Your task to perform on an android device: turn on location history Image 0: 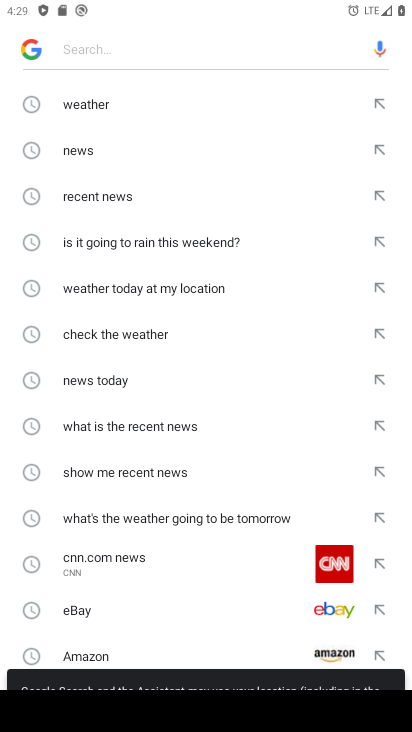
Step 0: press back button
Your task to perform on an android device: turn on location history Image 1: 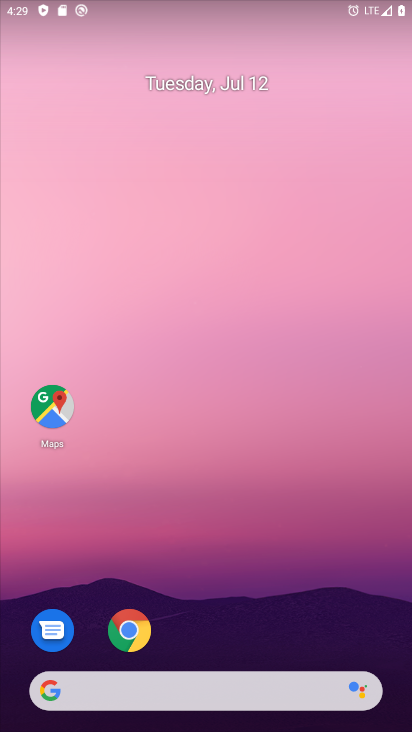
Step 1: drag from (257, 592) to (177, 51)
Your task to perform on an android device: turn on location history Image 2: 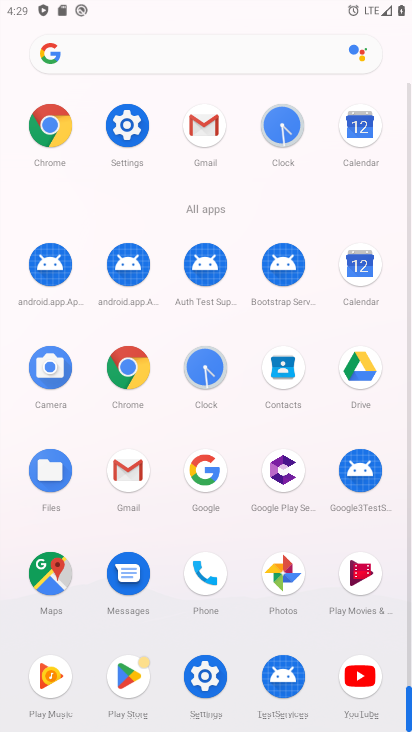
Step 2: click (126, 138)
Your task to perform on an android device: turn on location history Image 3: 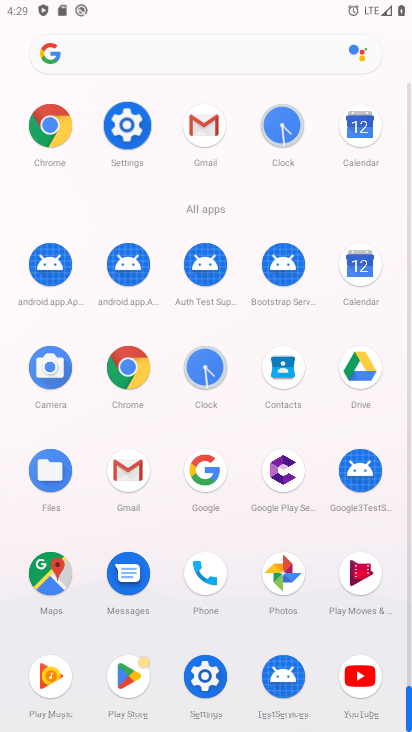
Step 3: click (126, 138)
Your task to perform on an android device: turn on location history Image 4: 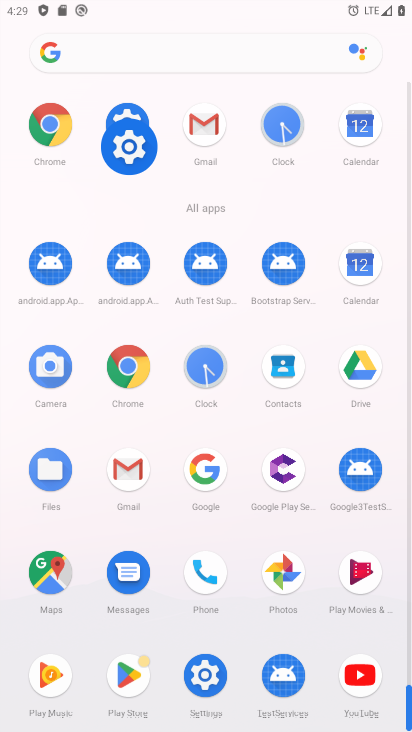
Step 4: click (126, 138)
Your task to perform on an android device: turn on location history Image 5: 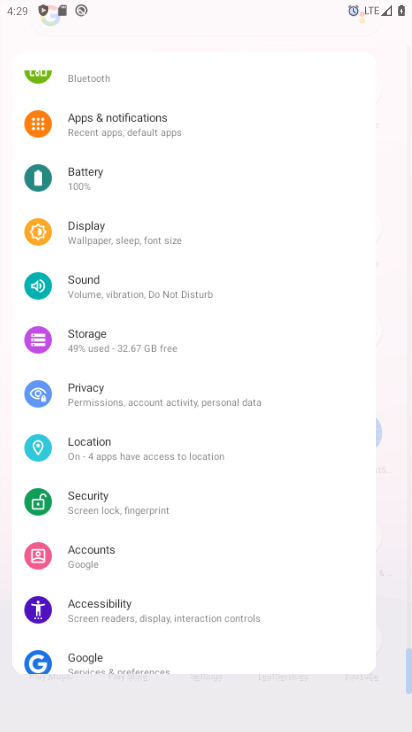
Step 5: click (126, 138)
Your task to perform on an android device: turn on location history Image 6: 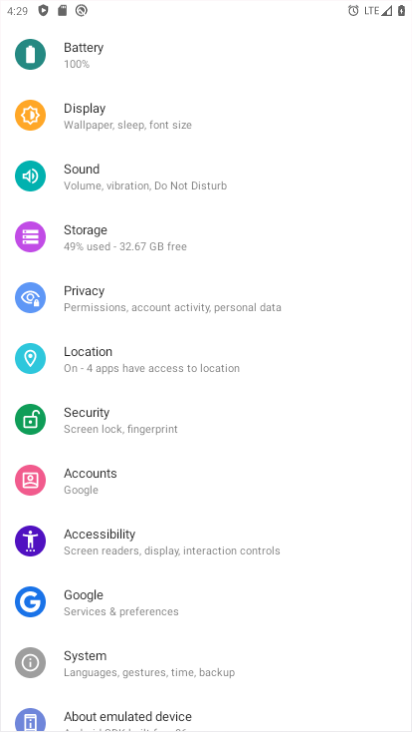
Step 6: click (126, 138)
Your task to perform on an android device: turn on location history Image 7: 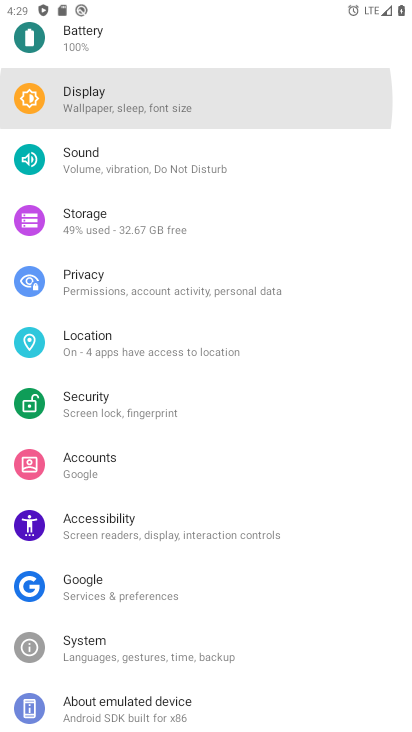
Step 7: click (126, 138)
Your task to perform on an android device: turn on location history Image 8: 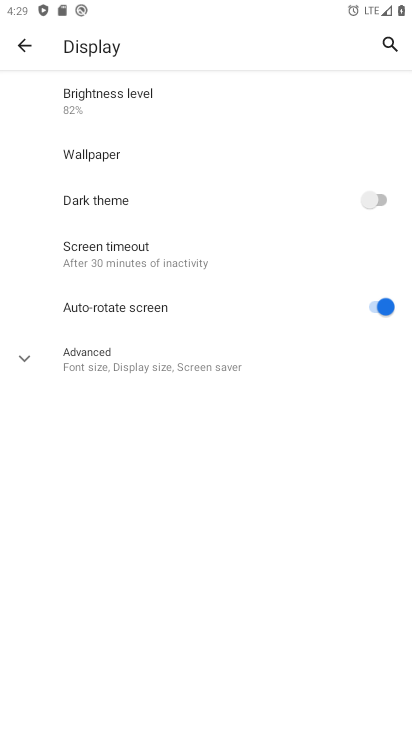
Step 8: drag from (219, 491) to (205, 130)
Your task to perform on an android device: turn on location history Image 9: 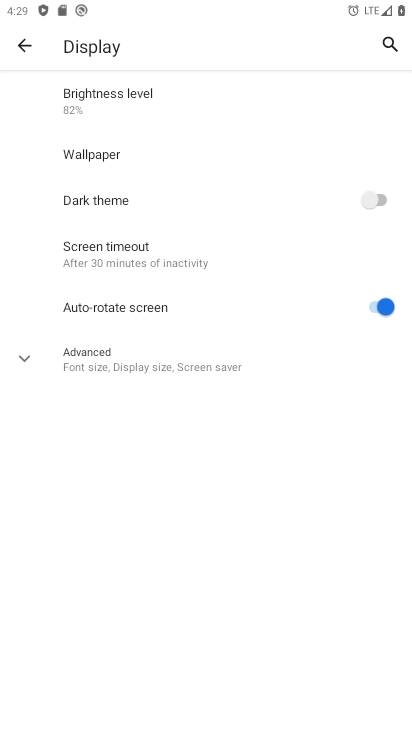
Step 9: click (24, 45)
Your task to perform on an android device: turn on location history Image 10: 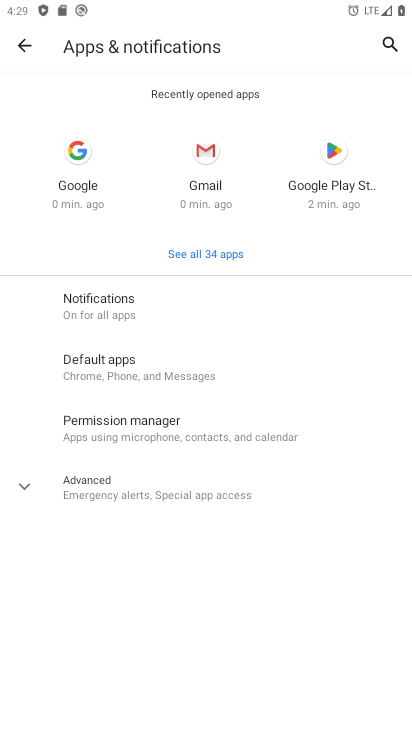
Step 10: click (21, 40)
Your task to perform on an android device: turn on location history Image 11: 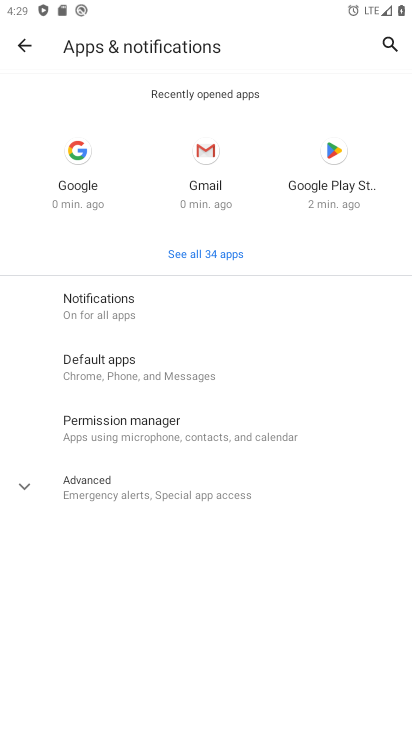
Step 11: click (21, 40)
Your task to perform on an android device: turn on location history Image 12: 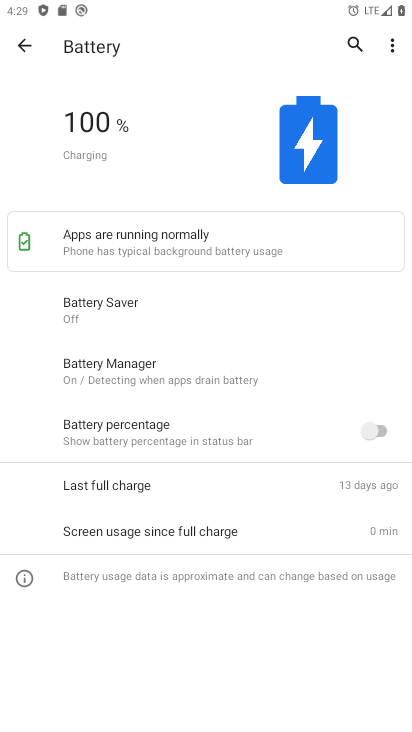
Step 12: click (23, 41)
Your task to perform on an android device: turn on location history Image 13: 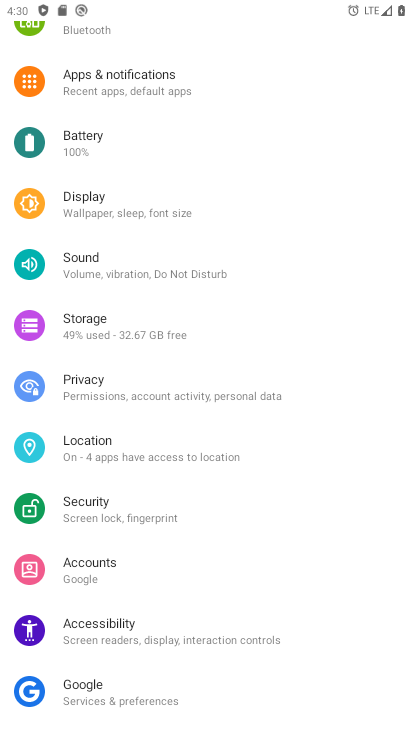
Step 13: drag from (139, 142) to (157, 460)
Your task to perform on an android device: turn on location history Image 14: 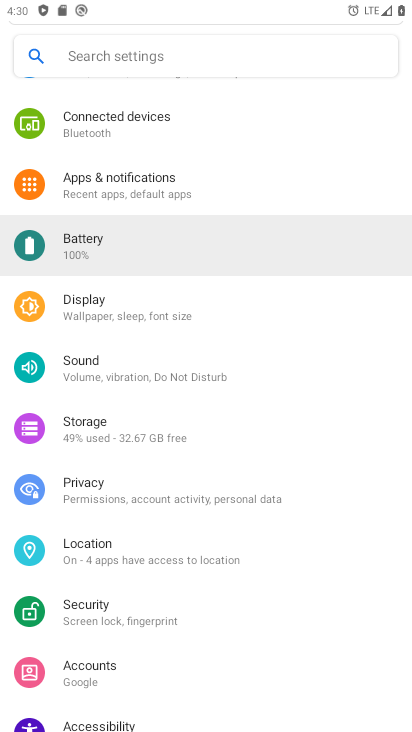
Step 14: drag from (142, 202) to (182, 497)
Your task to perform on an android device: turn on location history Image 15: 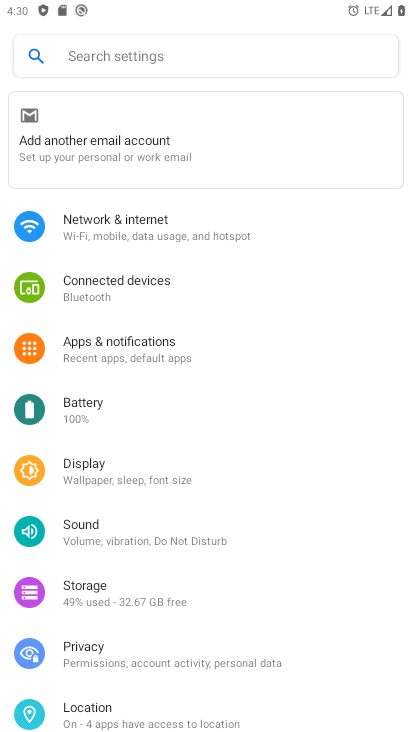
Step 15: drag from (110, 492) to (107, 116)
Your task to perform on an android device: turn on location history Image 16: 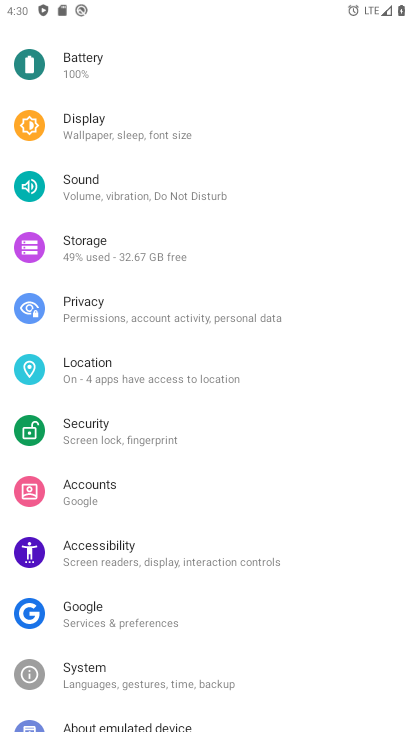
Step 16: drag from (167, 405) to (146, 234)
Your task to perform on an android device: turn on location history Image 17: 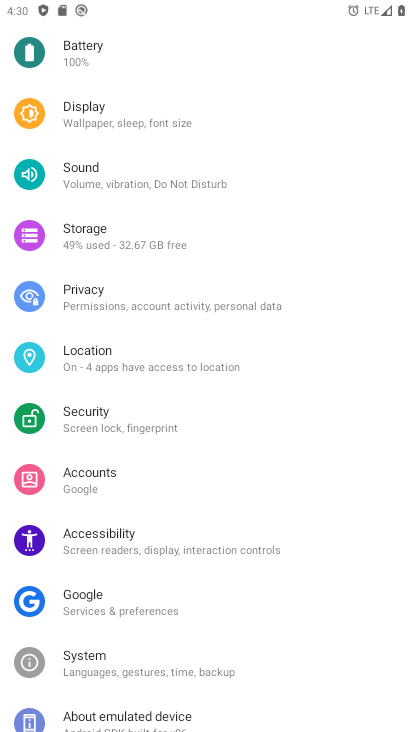
Step 17: click (115, 360)
Your task to perform on an android device: turn on location history Image 18: 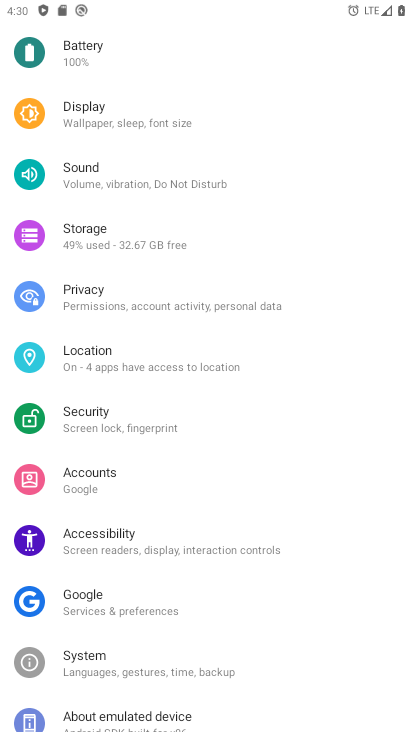
Step 18: click (115, 360)
Your task to perform on an android device: turn on location history Image 19: 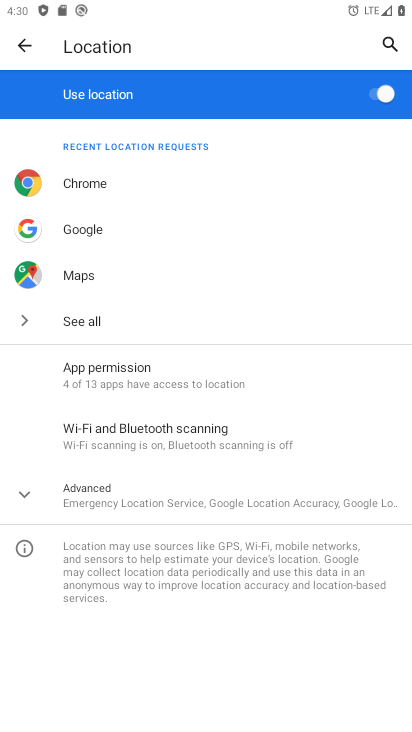
Step 19: click (92, 493)
Your task to perform on an android device: turn on location history Image 20: 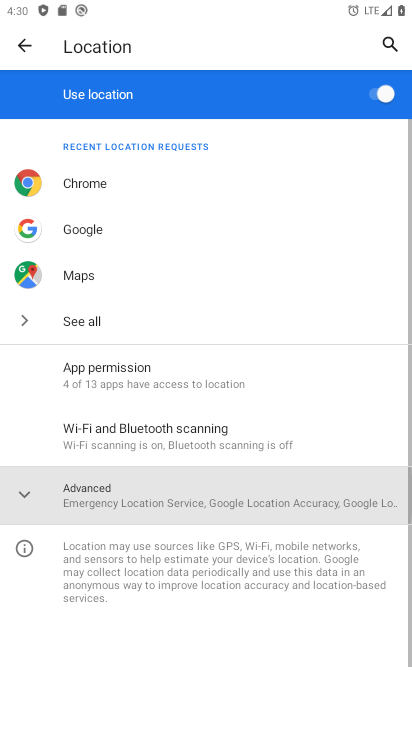
Step 20: click (92, 493)
Your task to perform on an android device: turn on location history Image 21: 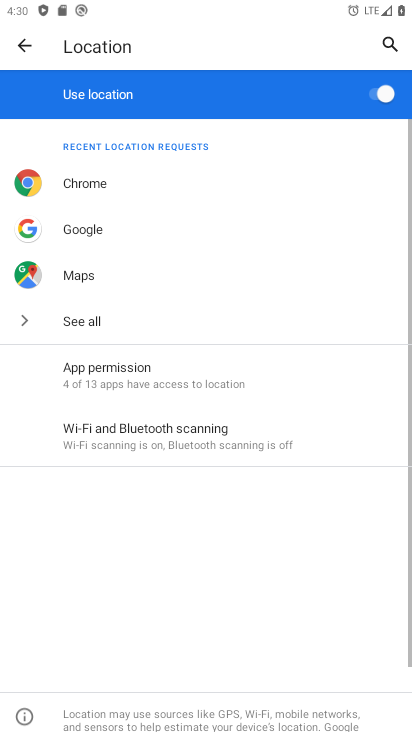
Step 21: click (92, 493)
Your task to perform on an android device: turn on location history Image 22: 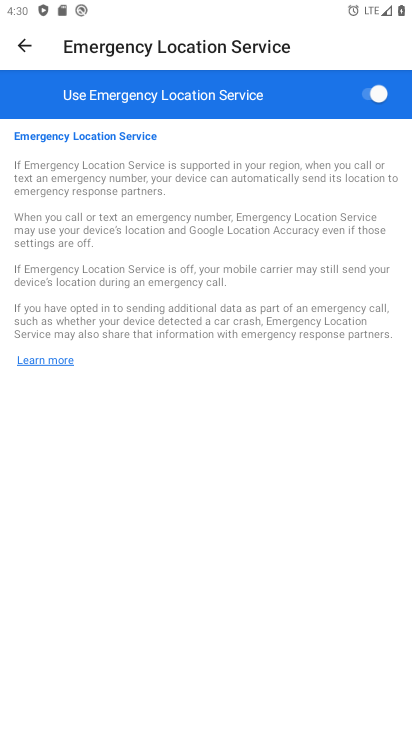
Step 22: click (26, 36)
Your task to perform on an android device: turn on location history Image 23: 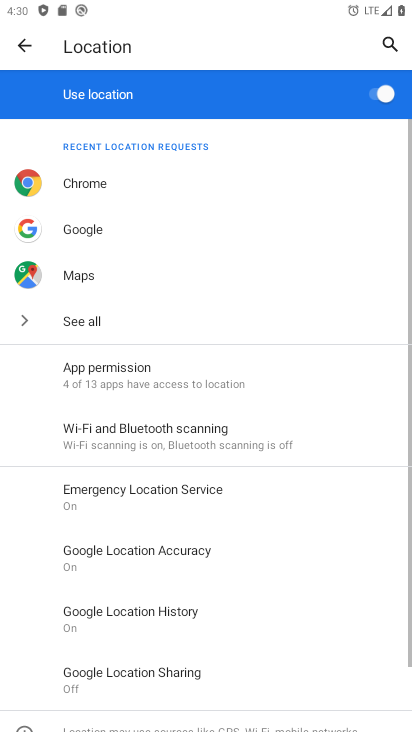
Step 23: click (171, 608)
Your task to perform on an android device: turn on location history Image 24: 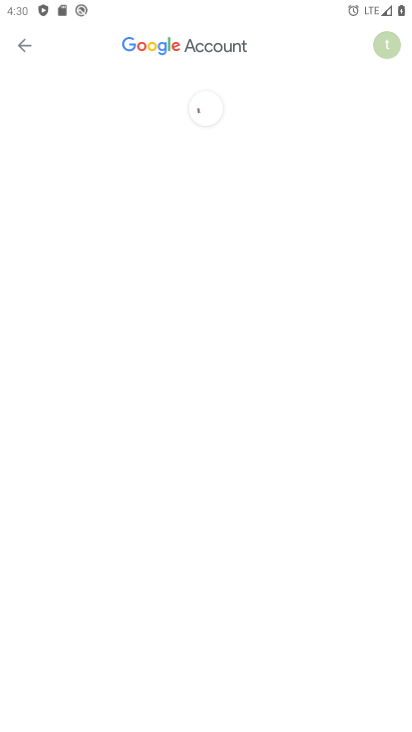
Step 24: task complete